Your task to perform on an android device: set default search engine in the chrome app Image 0: 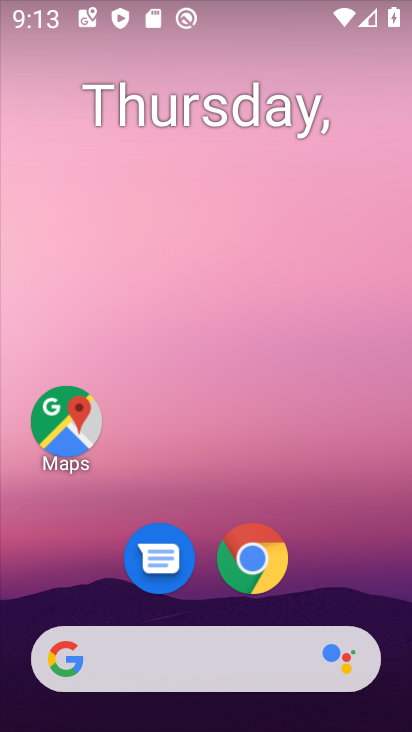
Step 0: click (253, 558)
Your task to perform on an android device: set default search engine in the chrome app Image 1: 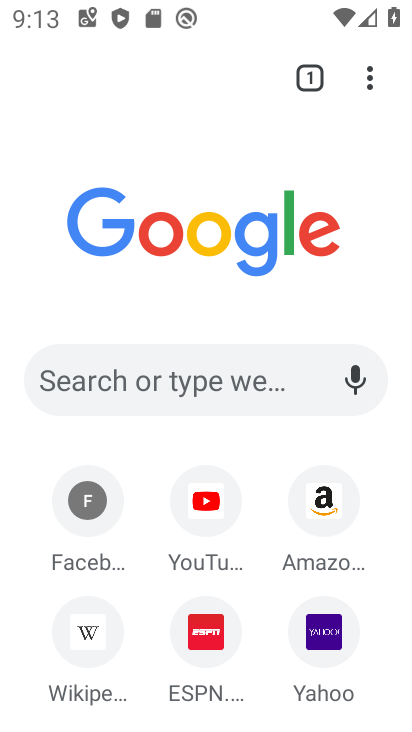
Step 1: click (370, 77)
Your task to perform on an android device: set default search engine in the chrome app Image 2: 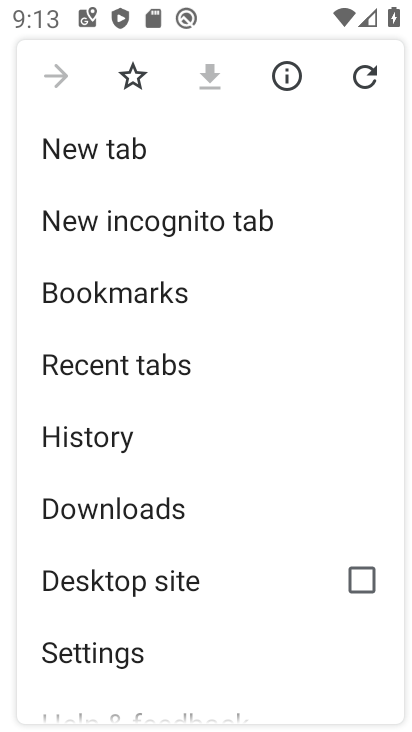
Step 2: click (81, 649)
Your task to perform on an android device: set default search engine in the chrome app Image 3: 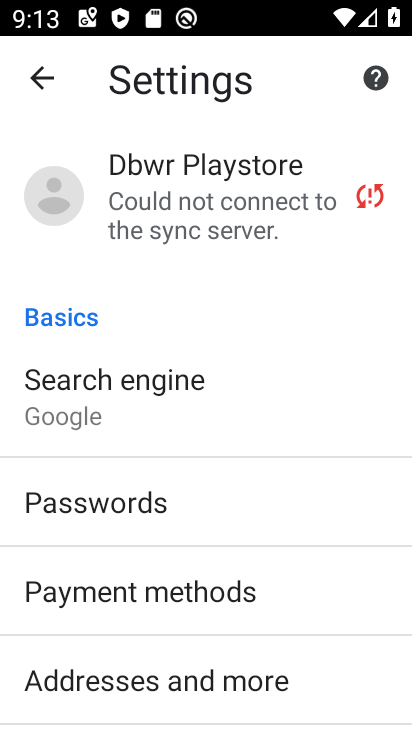
Step 3: click (134, 373)
Your task to perform on an android device: set default search engine in the chrome app Image 4: 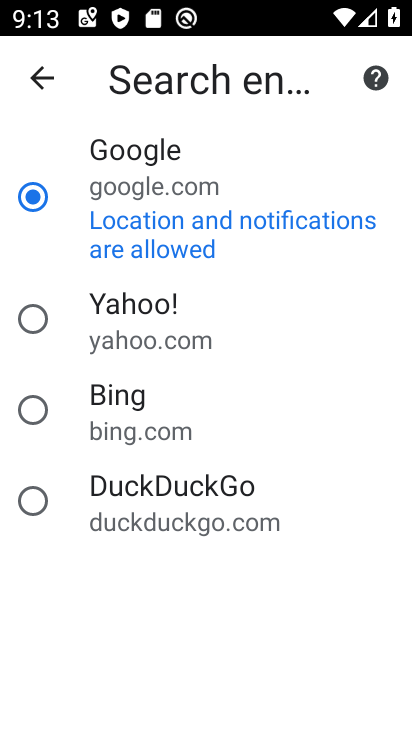
Step 4: click (41, 416)
Your task to perform on an android device: set default search engine in the chrome app Image 5: 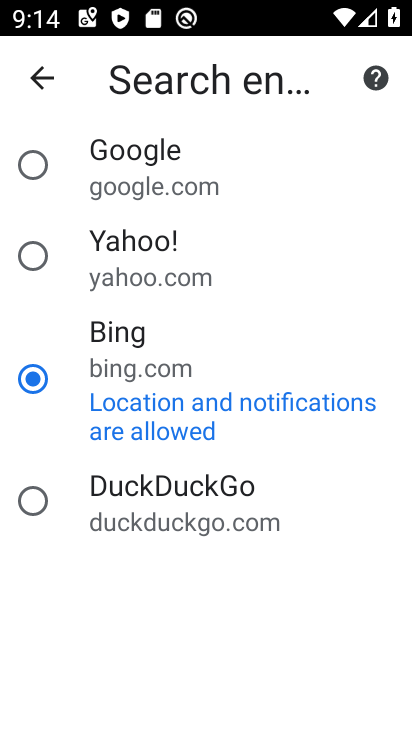
Step 5: task complete